Your task to perform on an android device: turn on the 12-hour format for clock Image 0: 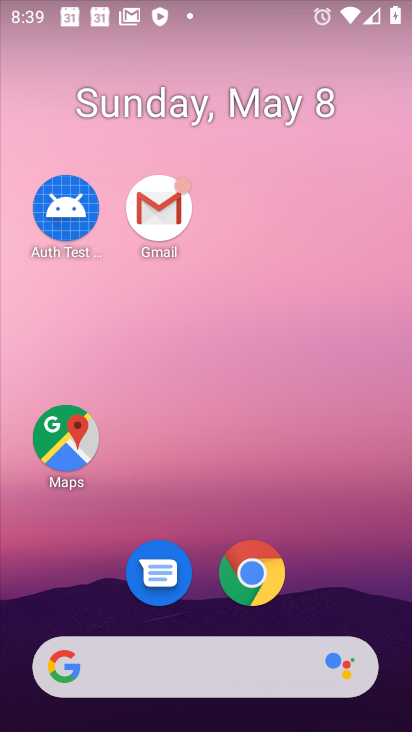
Step 0: drag from (343, 608) to (163, 29)
Your task to perform on an android device: turn on the 12-hour format for clock Image 1: 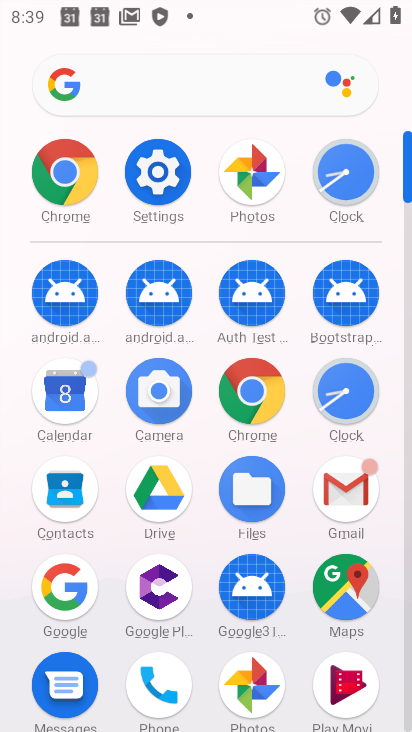
Step 1: click (340, 185)
Your task to perform on an android device: turn on the 12-hour format for clock Image 2: 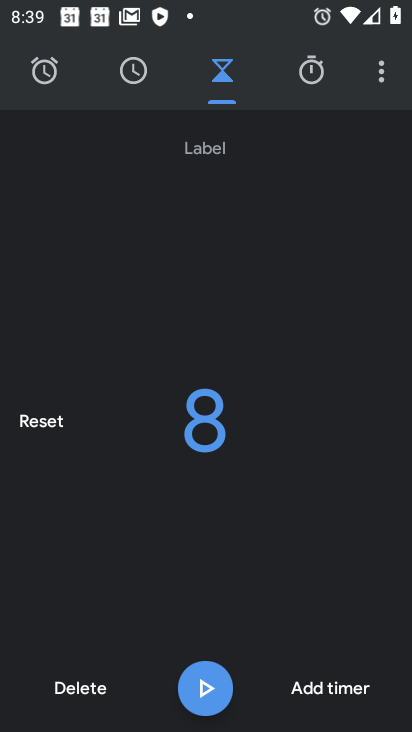
Step 2: click (378, 73)
Your task to perform on an android device: turn on the 12-hour format for clock Image 3: 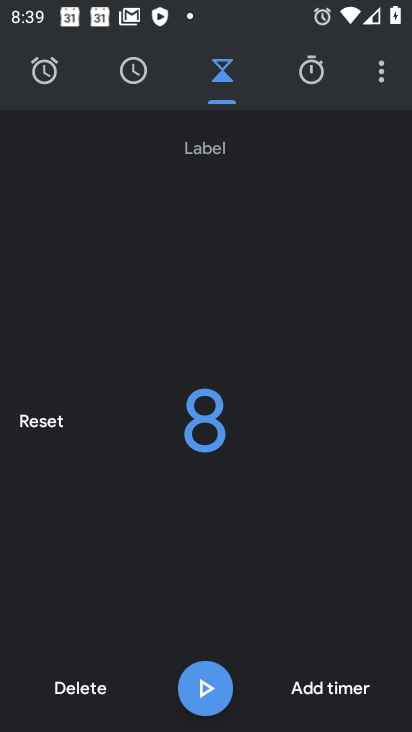
Step 3: click (378, 73)
Your task to perform on an android device: turn on the 12-hour format for clock Image 4: 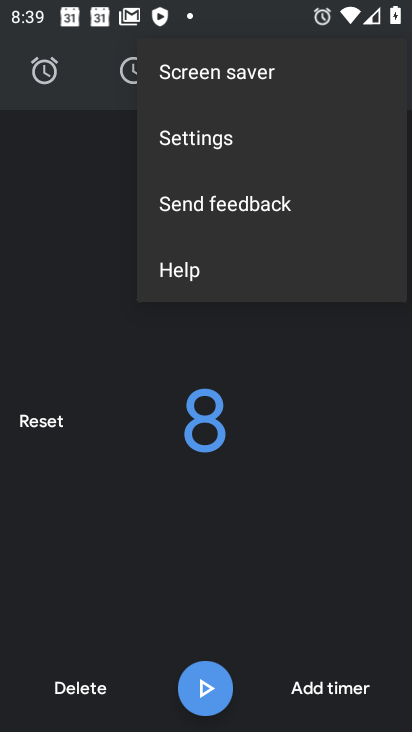
Step 4: click (203, 146)
Your task to perform on an android device: turn on the 12-hour format for clock Image 5: 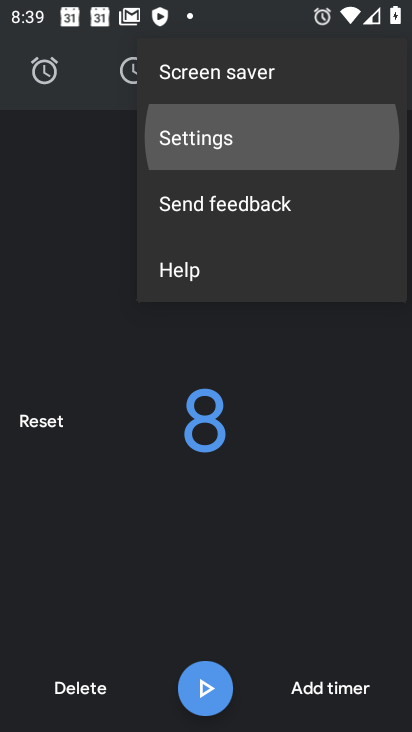
Step 5: click (201, 142)
Your task to perform on an android device: turn on the 12-hour format for clock Image 6: 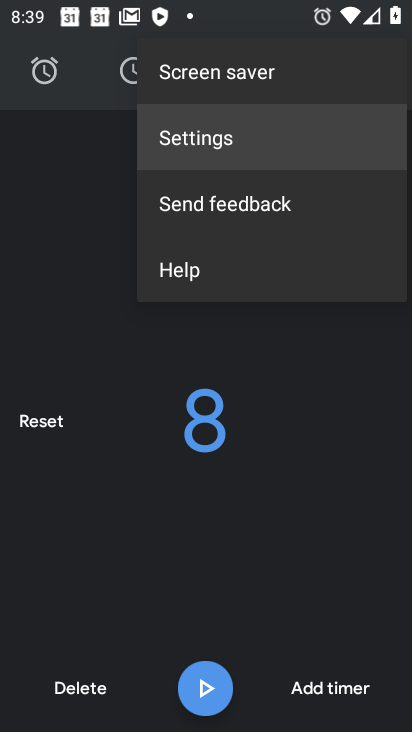
Step 6: click (201, 142)
Your task to perform on an android device: turn on the 12-hour format for clock Image 7: 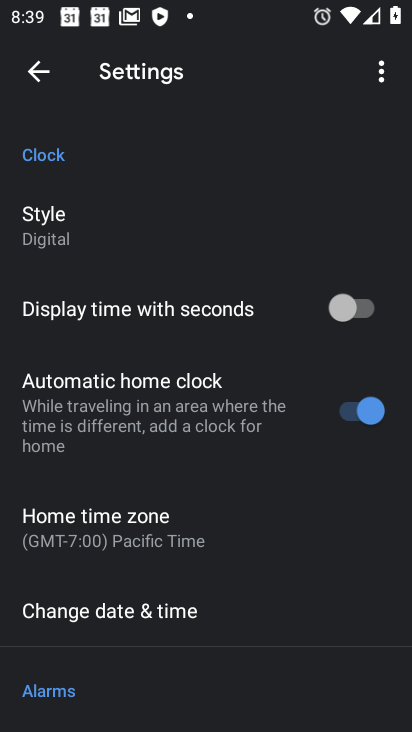
Step 7: click (105, 612)
Your task to perform on an android device: turn on the 12-hour format for clock Image 8: 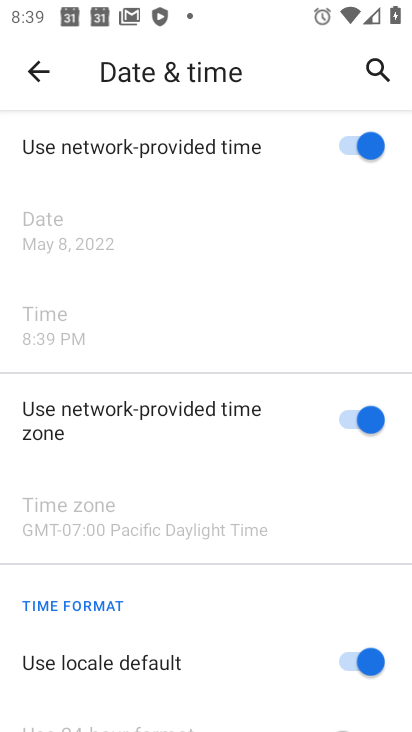
Step 8: click (134, 67)
Your task to perform on an android device: turn on the 12-hour format for clock Image 9: 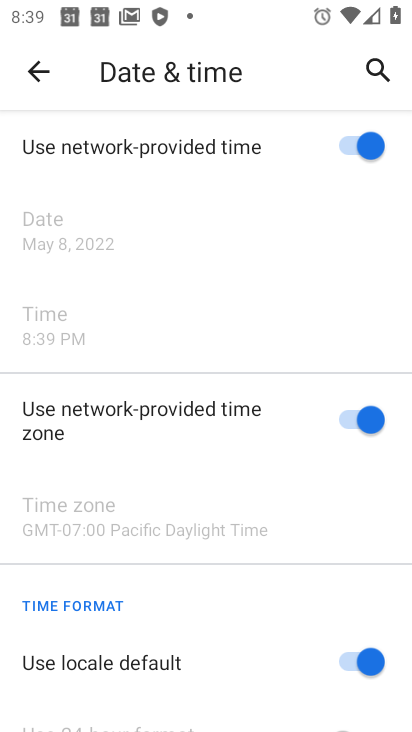
Step 9: task complete